Your task to perform on an android device: Go to Google maps Image 0: 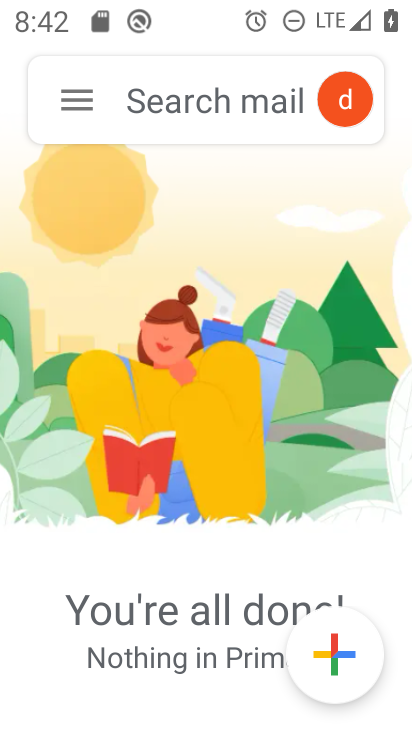
Step 0: press home button
Your task to perform on an android device: Go to Google maps Image 1: 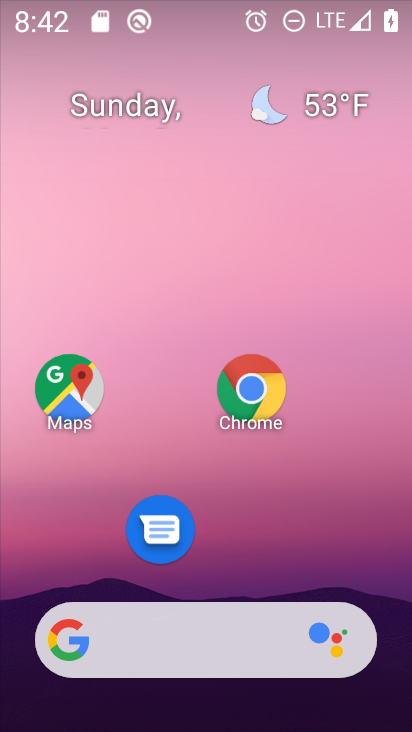
Step 1: click (89, 393)
Your task to perform on an android device: Go to Google maps Image 2: 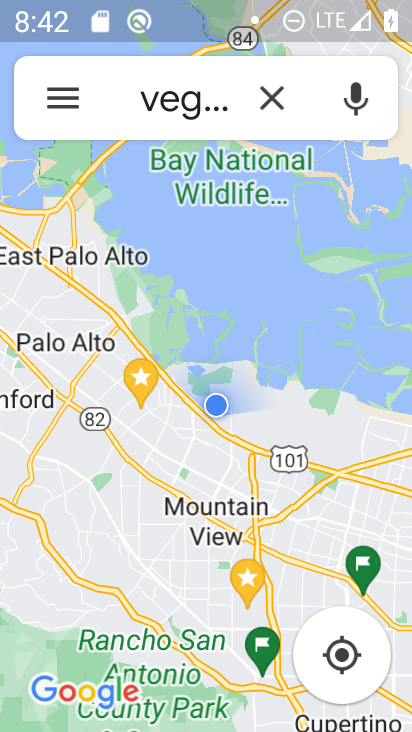
Step 2: task complete